Your task to perform on an android device: turn notification dots on Image 0: 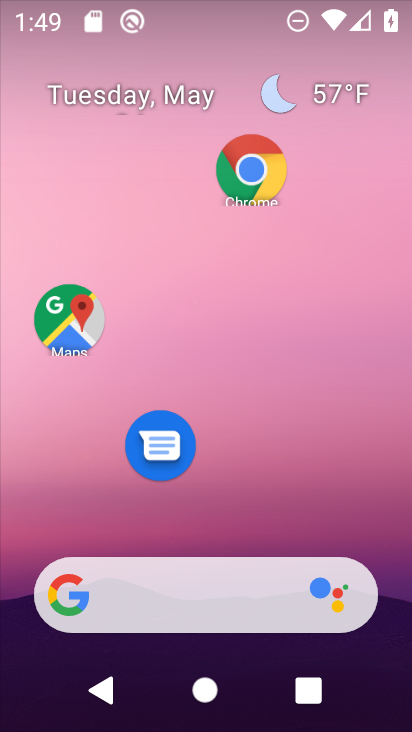
Step 0: drag from (232, 722) to (240, 150)
Your task to perform on an android device: turn notification dots on Image 1: 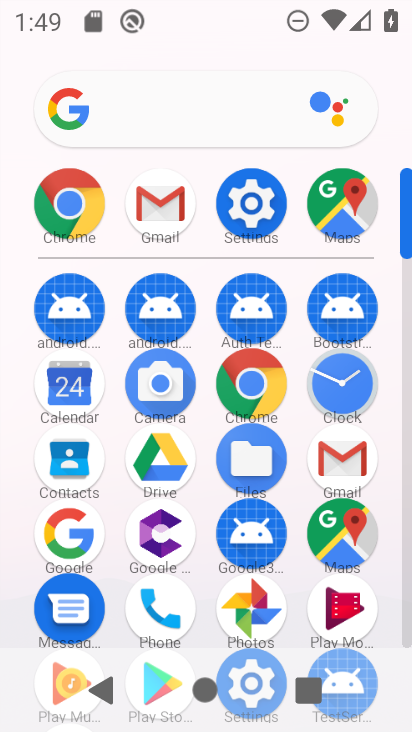
Step 1: click (249, 211)
Your task to perform on an android device: turn notification dots on Image 2: 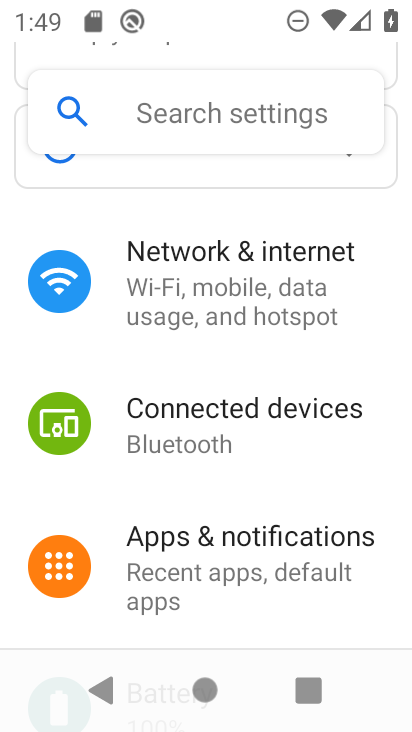
Step 2: click (204, 552)
Your task to perform on an android device: turn notification dots on Image 3: 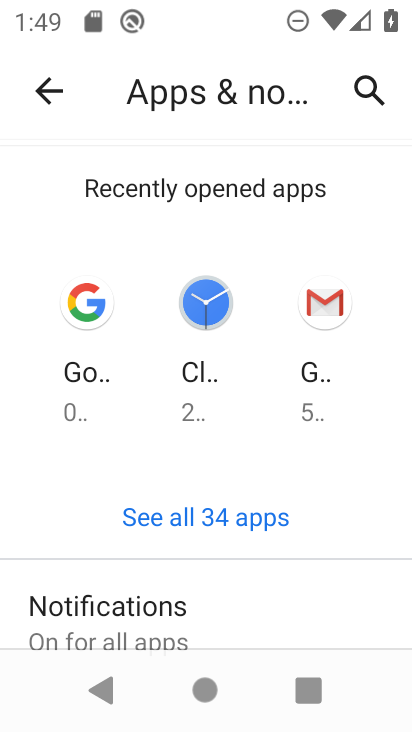
Step 3: click (168, 614)
Your task to perform on an android device: turn notification dots on Image 4: 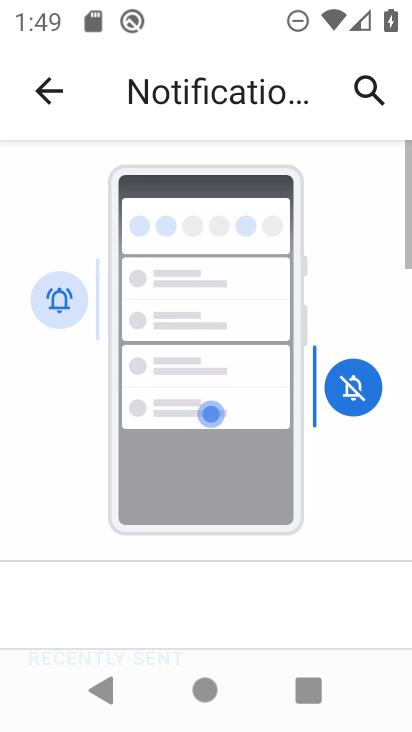
Step 4: drag from (234, 637) to (221, 290)
Your task to perform on an android device: turn notification dots on Image 5: 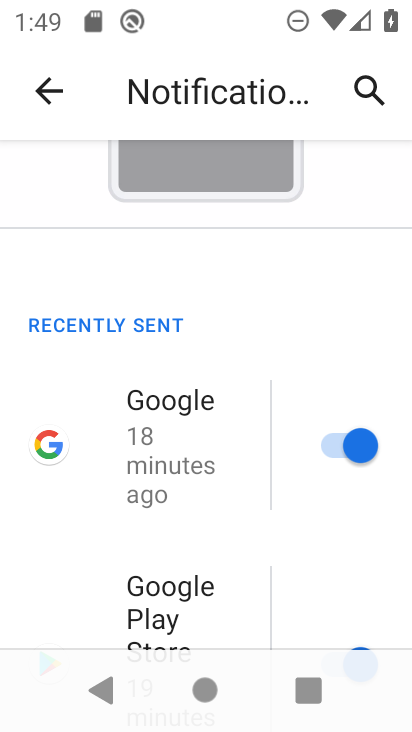
Step 5: drag from (196, 640) to (196, 274)
Your task to perform on an android device: turn notification dots on Image 6: 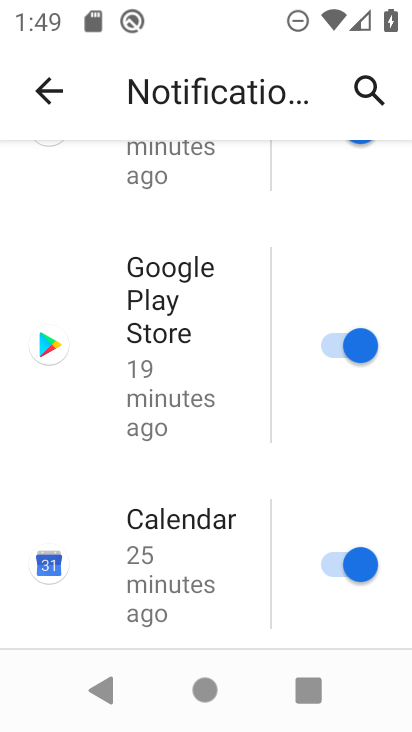
Step 6: drag from (231, 618) to (219, 224)
Your task to perform on an android device: turn notification dots on Image 7: 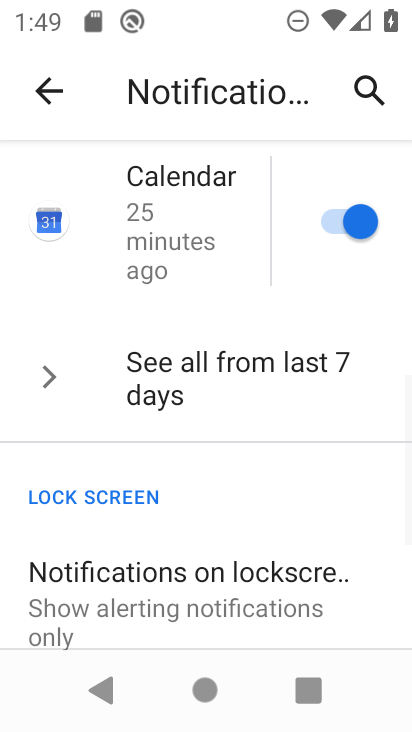
Step 7: drag from (243, 529) to (229, 303)
Your task to perform on an android device: turn notification dots on Image 8: 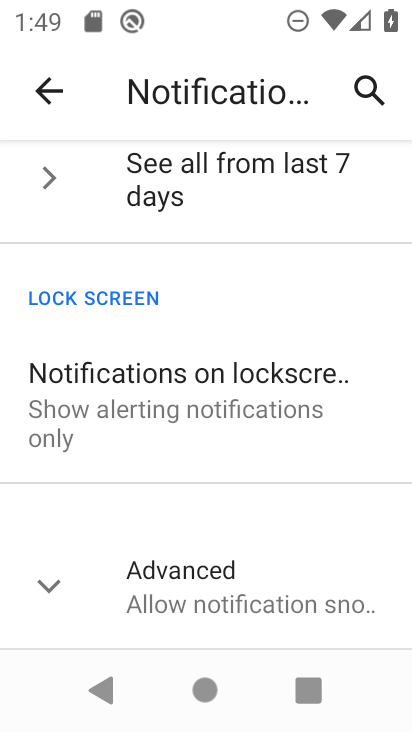
Step 8: click (177, 606)
Your task to perform on an android device: turn notification dots on Image 9: 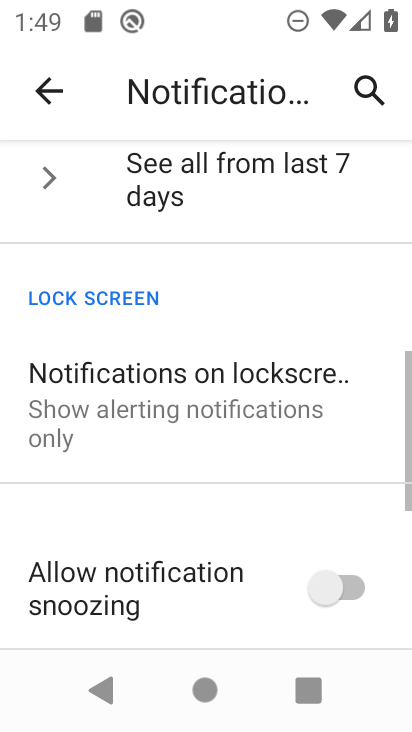
Step 9: task complete